Your task to perform on an android device: Go to ESPN.com Image 0: 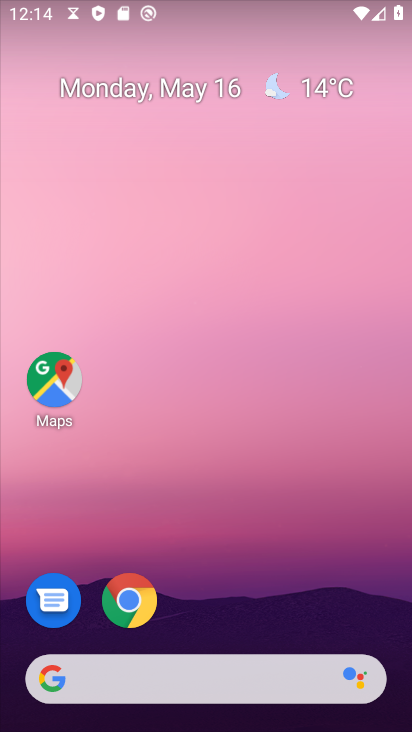
Step 0: drag from (243, 446) to (239, 79)
Your task to perform on an android device: Go to ESPN.com Image 1: 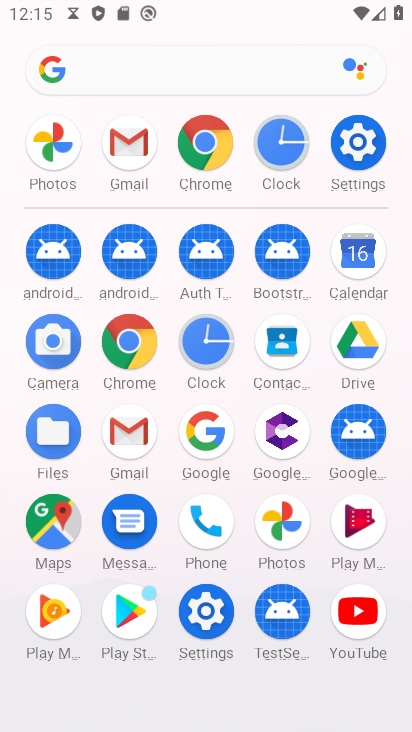
Step 1: click (133, 330)
Your task to perform on an android device: Go to ESPN.com Image 2: 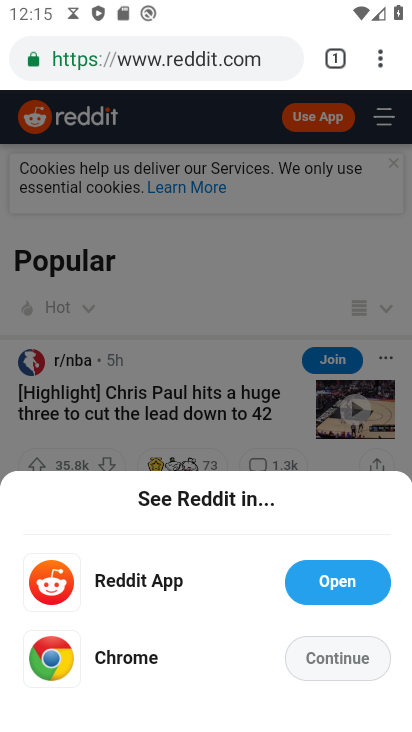
Step 2: click (198, 61)
Your task to perform on an android device: Go to ESPN.com Image 3: 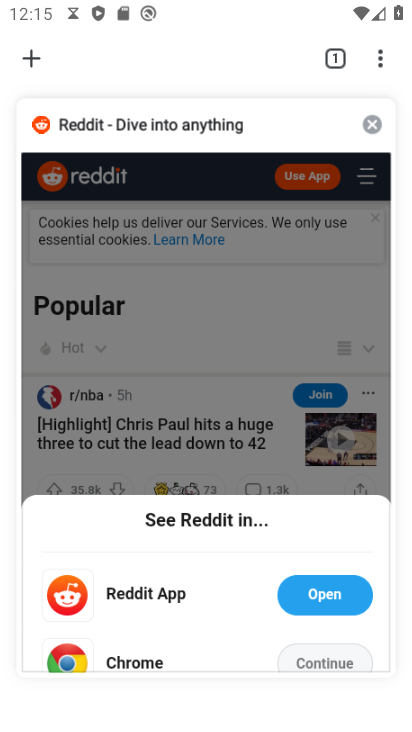
Step 3: click (106, 342)
Your task to perform on an android device: Go to ESPN.com Image 4: 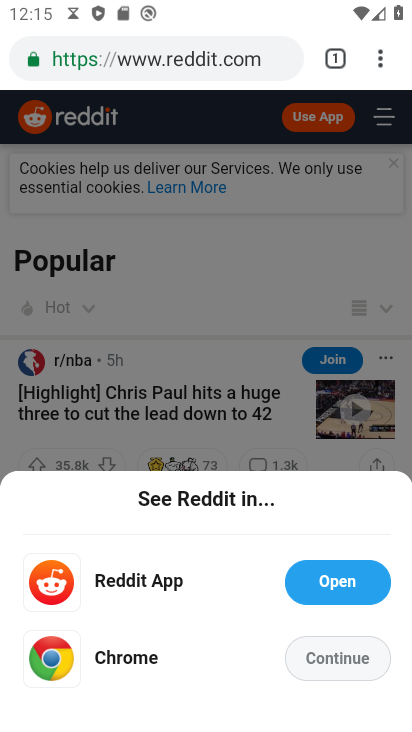
Step 4: click (160, 55)
Your task to perform on an android device: Go to ESPN.com Image 5: 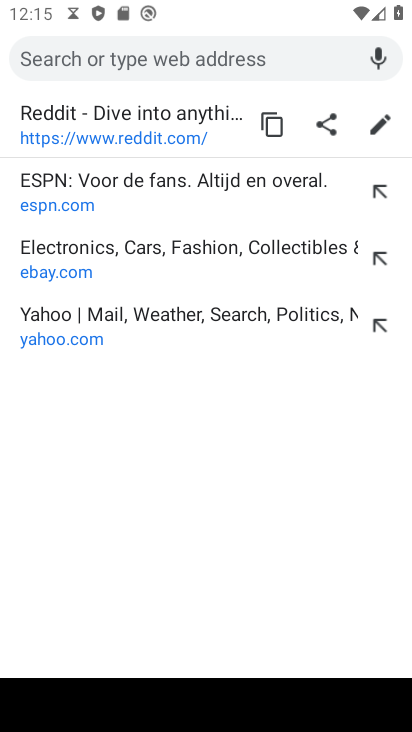
Step 5: click (140, 211)
Your task to perform on an android device: Go to ESPN.com Image 6: 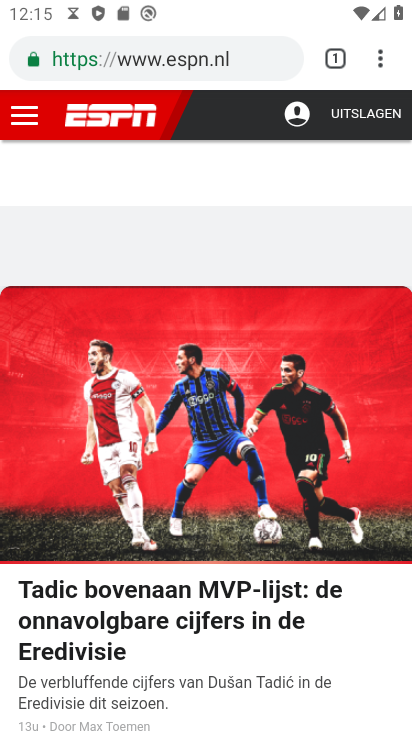
Step 6: task complete